Your task to perform on an android device: toggle notifications settings in the gmail app Image 0: 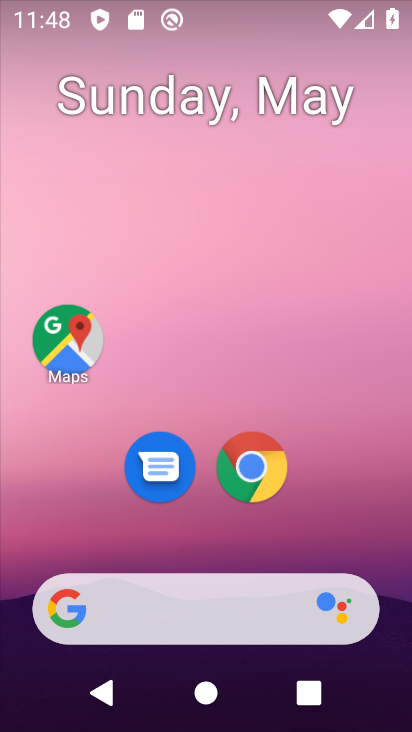
Step 0: drag from (218, 552) to (244, 9)
Your task to perform on an android device: toggle notifications settings in the gmail app Image 1: 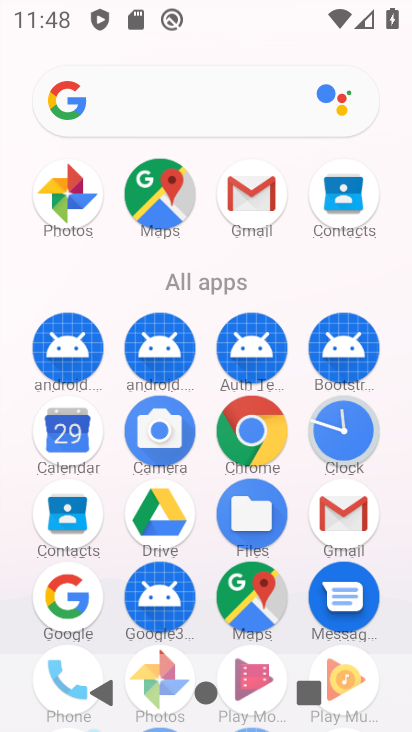
Step 1: click (259, 228)
Your task to perform on an android device: toggle notifications settings in the gmail app Image 2: 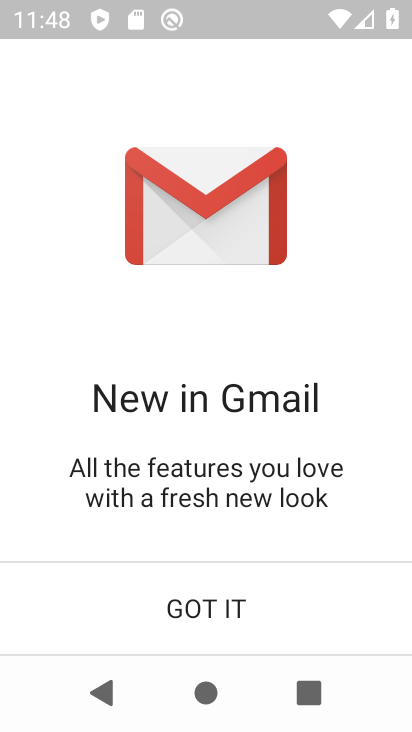
Step 2: click (167, 565)
Your task to perform on an android device: toggle notifications settings in the gmail app Image 3: 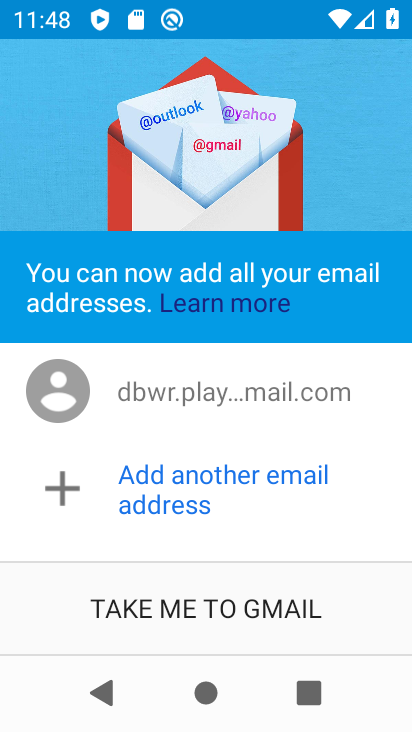
Step 3: click (205, 606)
Your task to perform on an android device: toggle notifications settings in the gmail app Image 4: 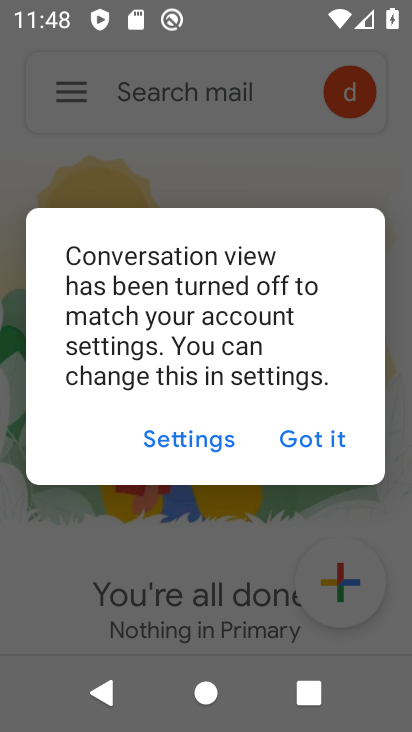
Step 4: click (400, 449)
Your task to perform on an android device: toggle notifications settings in the gmail app Image 5: 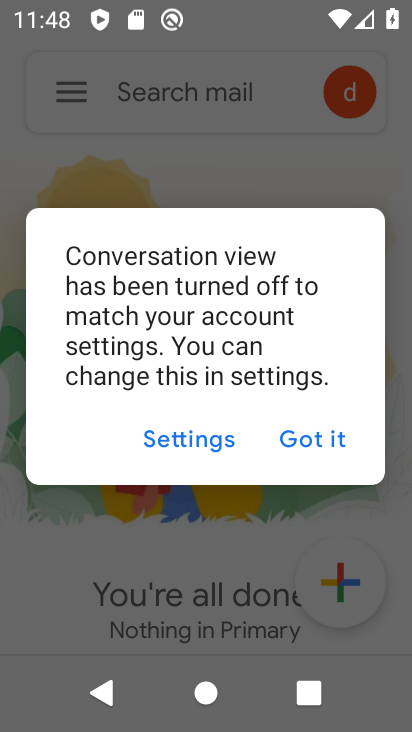
Step 5: click (327, 444)
Your task to perform on an android device: toggle notifications settings in the gmail app Image 6: 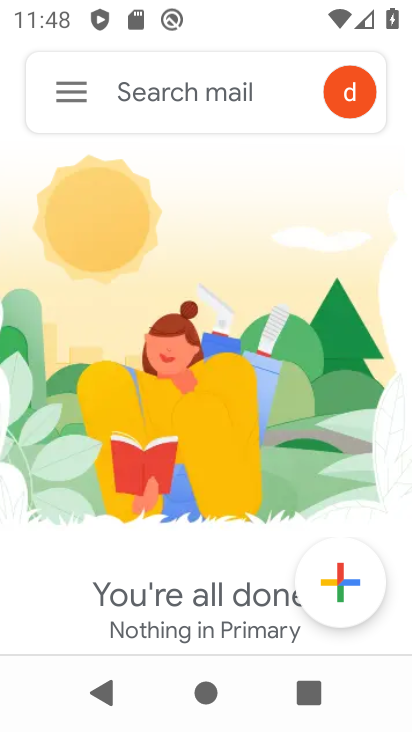
Step 6: click (61, 93)
Your task to perform on an android device: toggle notifications settings in the gmail app Image 7: 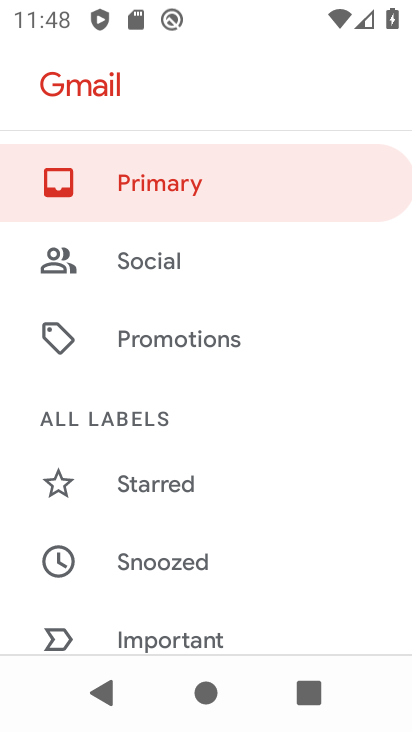
Step 7: drag from (249, 616) to (308, 131)
Your task to perform on an android device: toggle notifications settings in the gmail app Image 8: 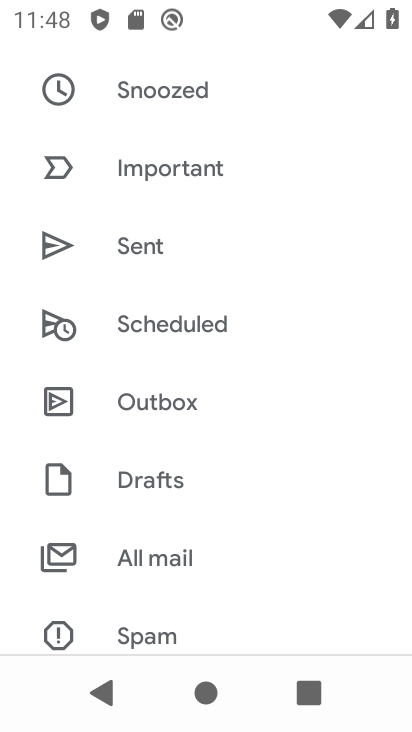
Step 8: drag from (146, 554) to (205, 119)
Your task to perform on an android device: toggle notifications settings in the gmail app Image 9: 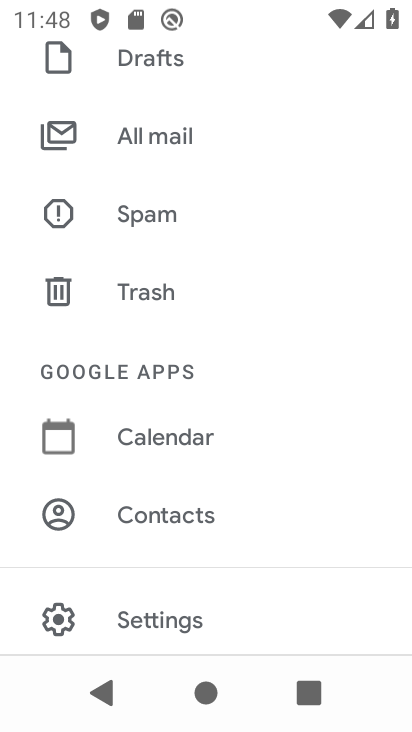
Step 9: click (165, 617)
Your task to perform on an android device: toggle notifications settings in the gmail app Image 10: 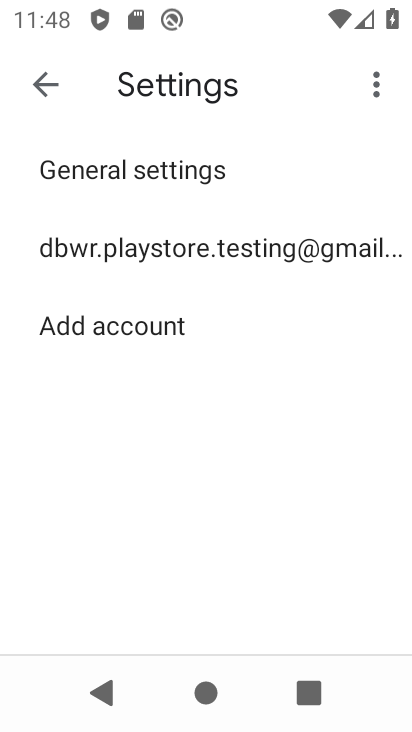
Step 10: click (181, 246)
Your task to perform on an android device: toggle notifications settings in the gmail app Image 11: 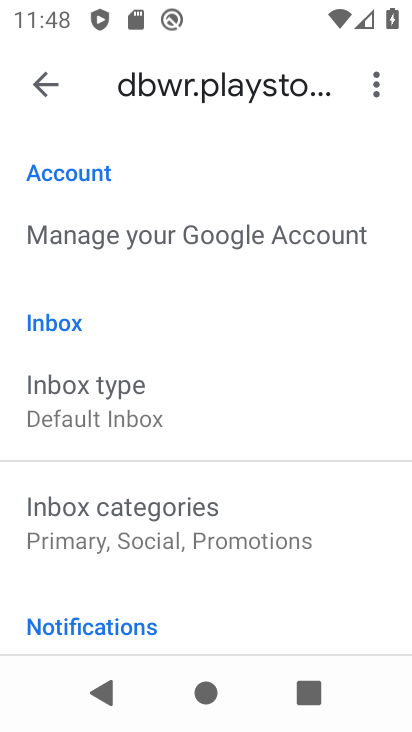
Step 11: click (108, 674)
Your task to perform on an android device: toggle notifications settings in the gmail app Image 12: 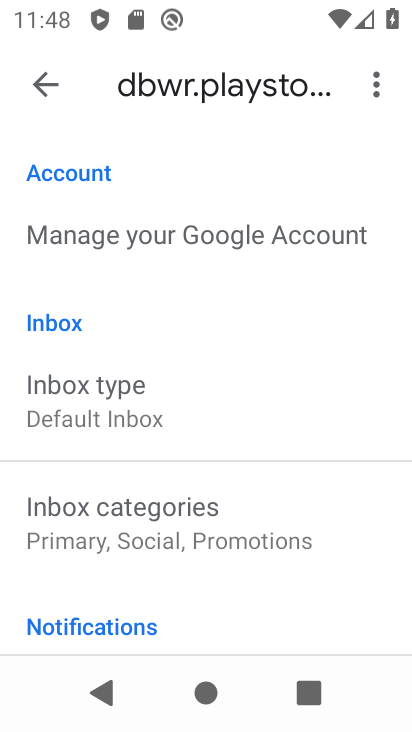
Step 12: click (172, 645)
Your task to perform on an android device: toggle notifications settings in the gmail app Image 13: 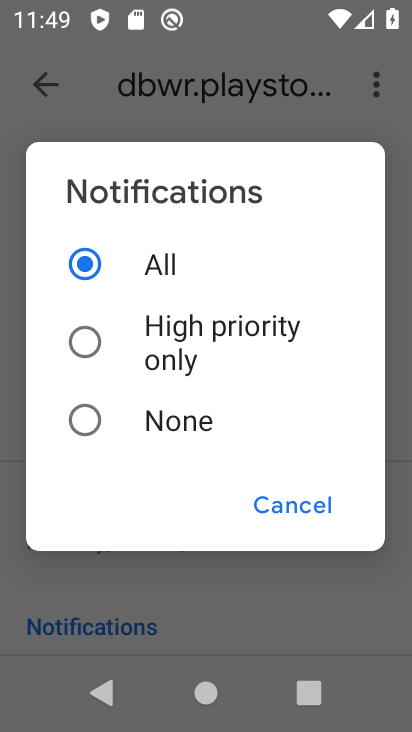
Step 13: click (81, 423)
Your task to perform on an android device: toggle notifications settings in the gmail app Image 14: 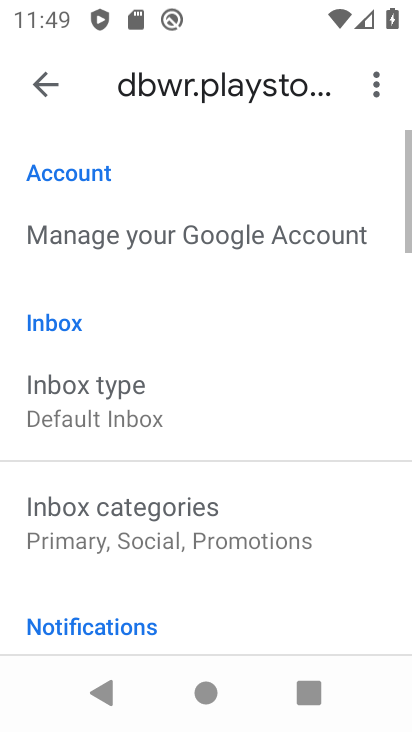
Step 14: task complete